Your task to perform on an android device: uninstall "Nova Launcher" Image 0: 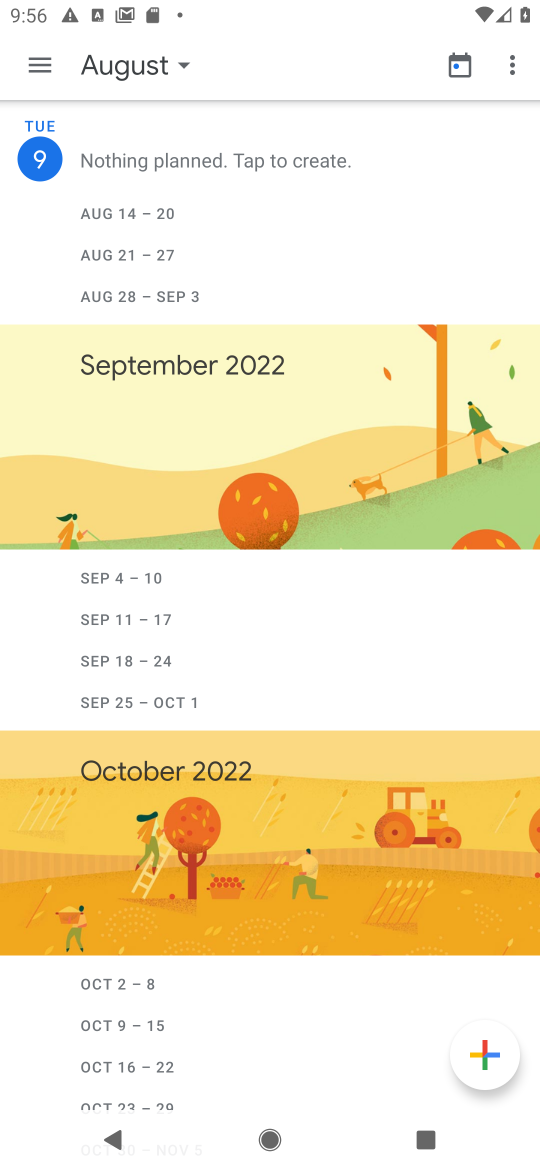
Step 0: press home button
Your task to perform on an android device: uninstall "Nova Launcher" Image 1: 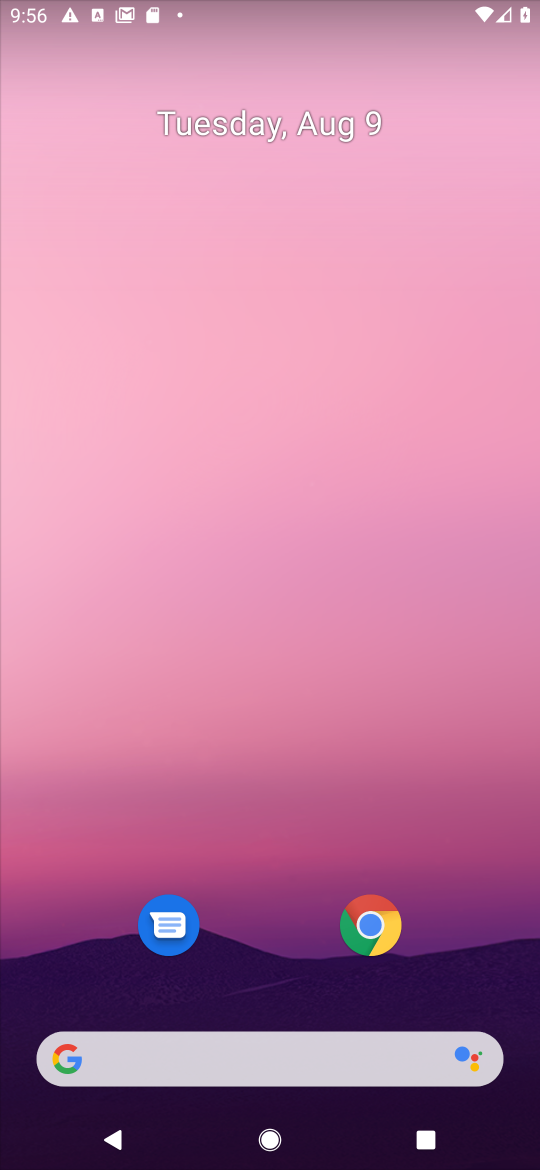
Step 1: drag from (262, 767) to (244, 151)
Your task to perform on an android device: uninstall "Nova Launcher" Image 2: 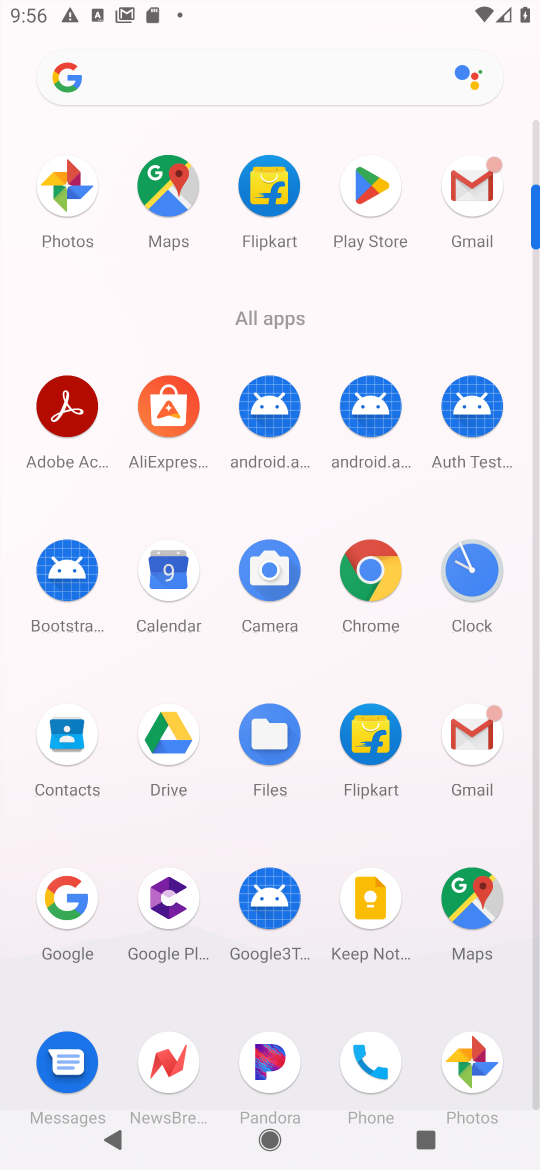
Step 2: click (363, 184)
Your task to perform on an android device: uninstall "Nova Launcher" Image 3: 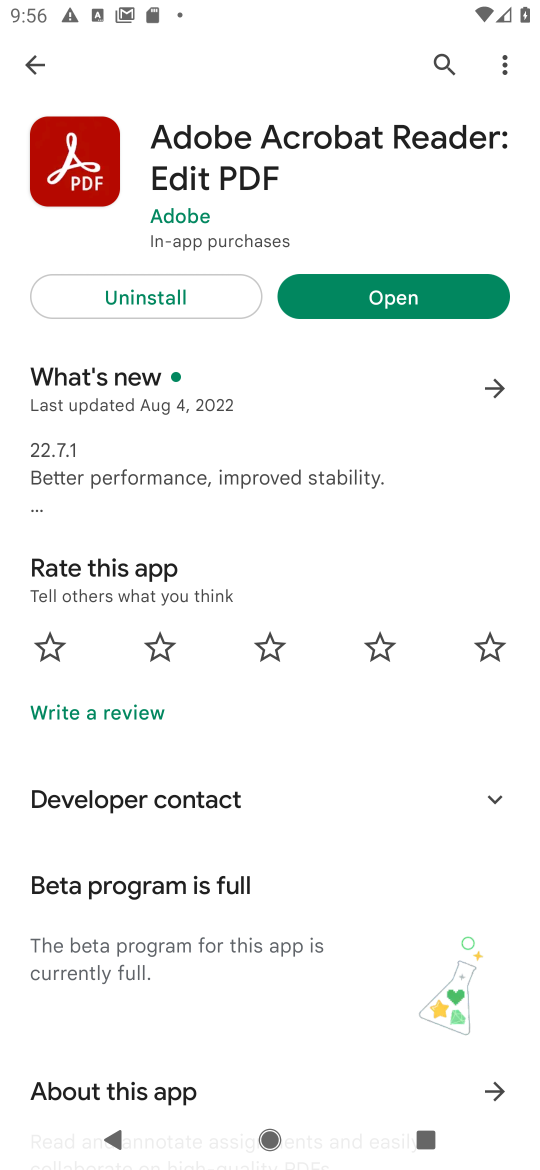
Step 3: click (34, 67)
Your task to perform on an android device: uninstall "Nova Launcher" Image 4: 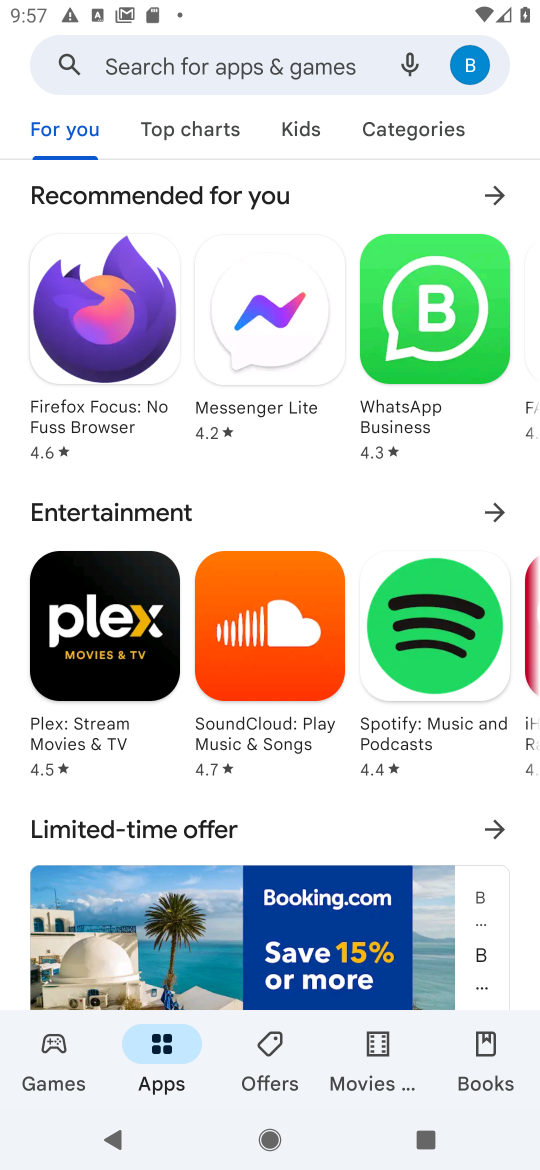
Step 4: click (236, 65)
Your task to perform on an android device: uninstall "Nova Launcher" Image 5: 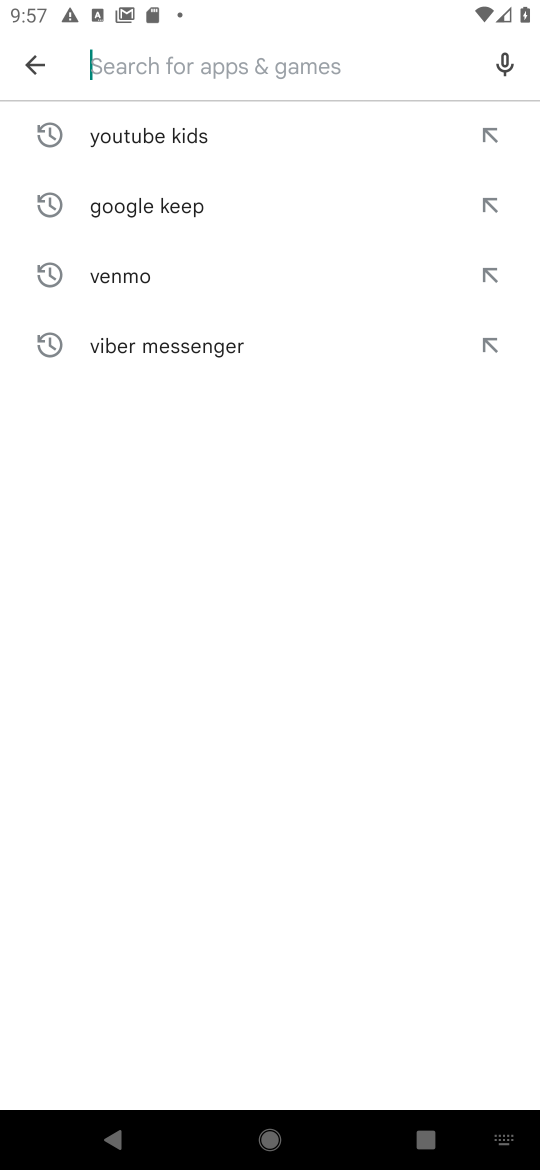
Step 5: type "Nova Launcher"
Your task to perform on an android device: uninstall "Nova Launcher" Image 6: 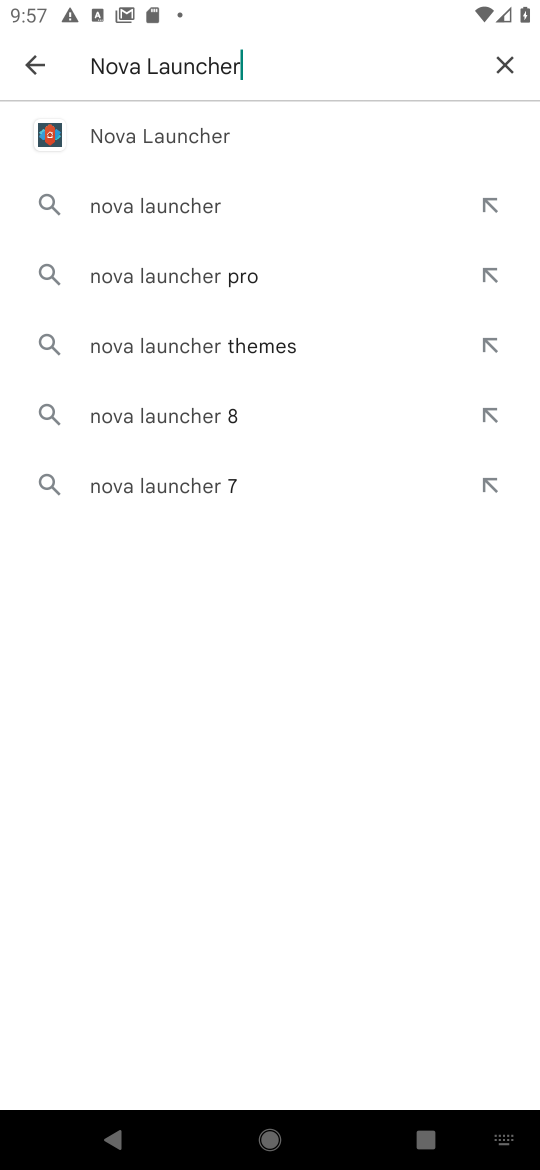
Step 6: click (154, 137)
Your task to perform on an android device: uninstall "Nova Launcher" Image 7: 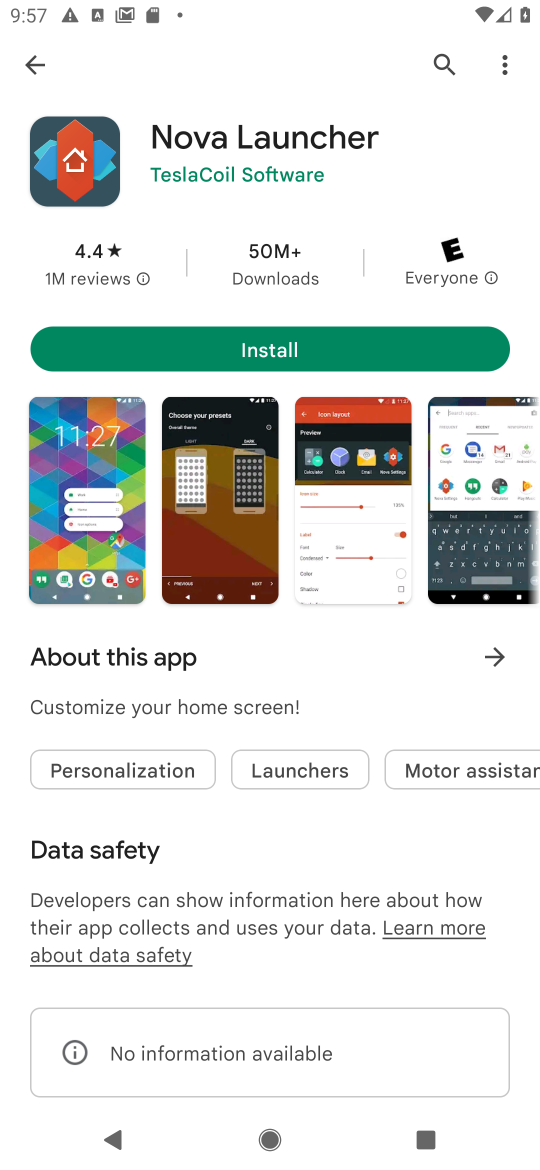
Step 7: click (276, 341)
Your task to perform on an android device: uninstall "Nova Launcher" Image 8: 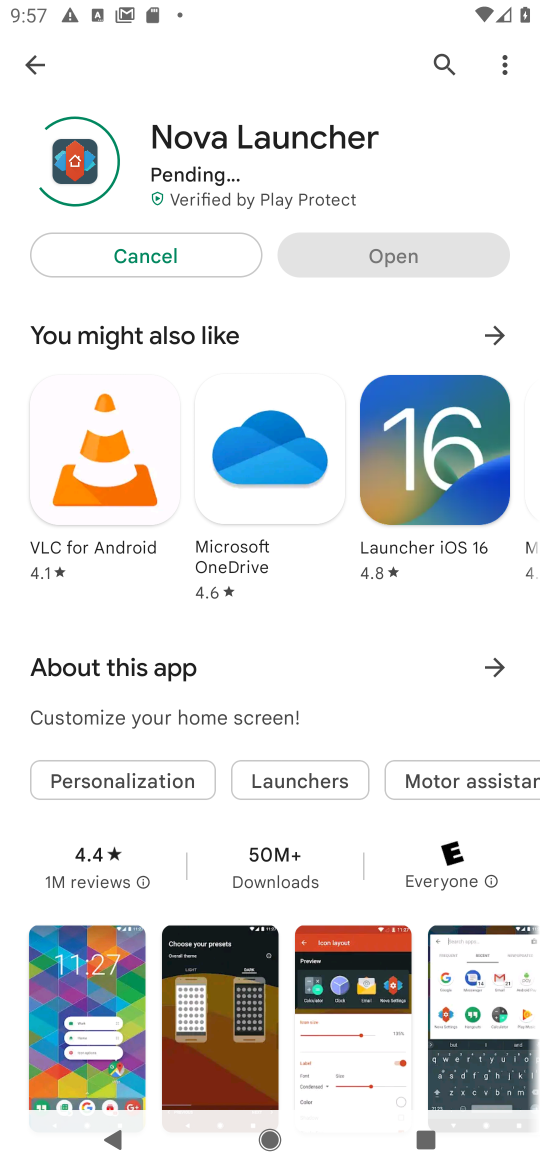
Step 8: task complete